Your task to perform on an android device: toggle airplane mode Image 0: 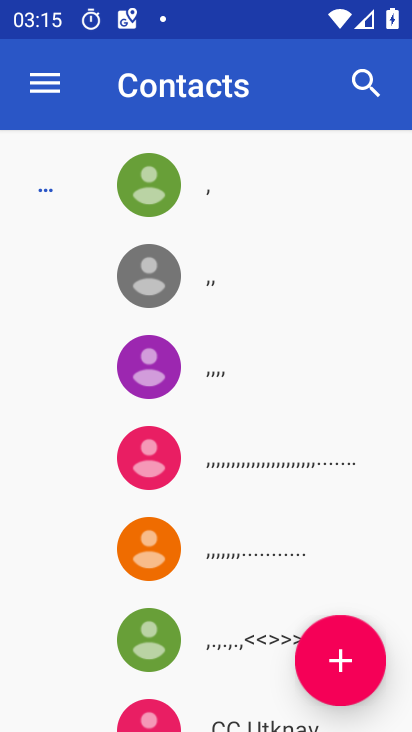
Step 0: press back button
Your task to perform on an android device: toggle airplane mode Image 1: 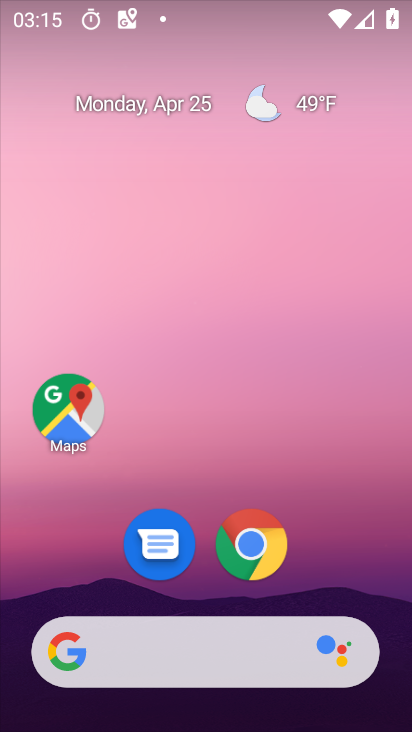
Step 1: drag from (196, 485) to (200, 55)
Your task to perform on an android device: toggle airplane mode Image 2: 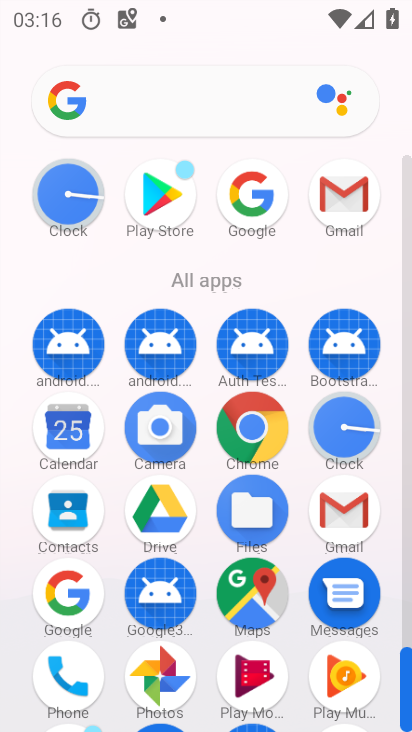
Step 2: drag from (106, 283) to (203, 68)
Your task to perform on an android device: toggle airplane mode Image 3: 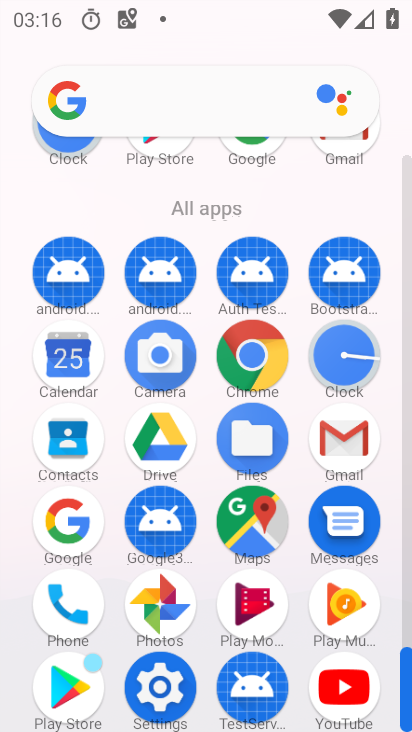
Step 3: click (158, 687)
Your task to perform on an android device: toggle airplane mode Image 4: 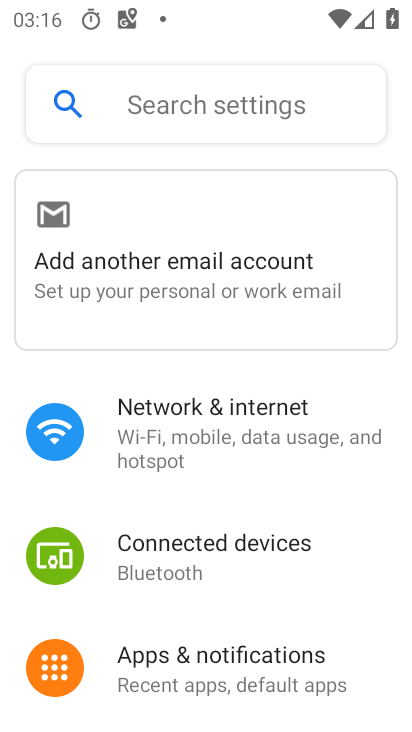
Step 4: click (242, 407)
Your task to perform on an android device: toggle airplane mode Image 5: 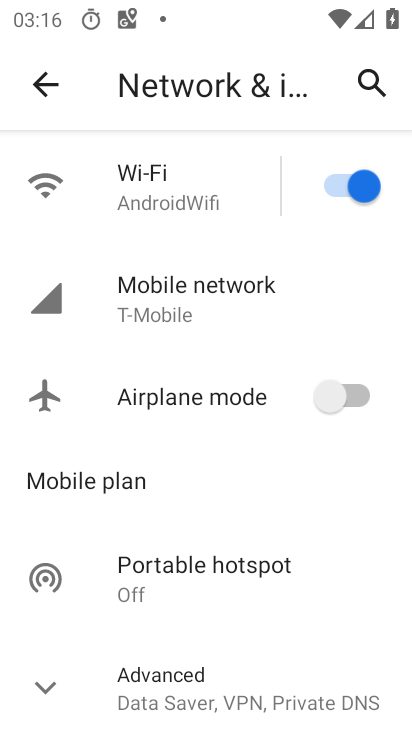
Step 5: click (342, 395)
Your task to perform on an android device: toggle airplane mode Image 6: 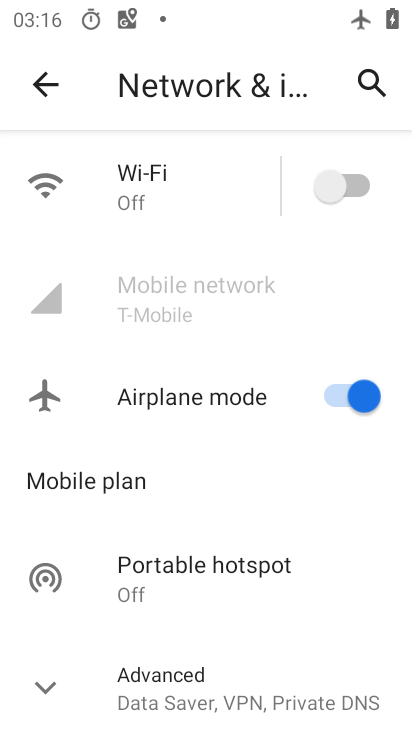
Step 6: task complete